Your task to perform on an android device: turn off airplane mode Image 0: 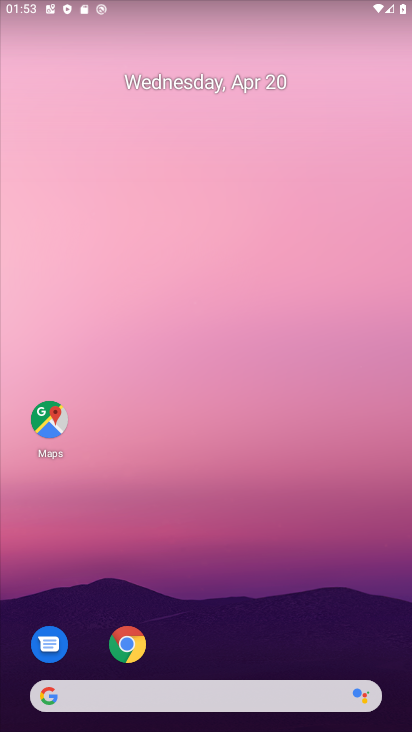
Step 0: drag from (254, 642) to (367, 132)
Your task to perform on an android device: turn off airplane mode Image 1: 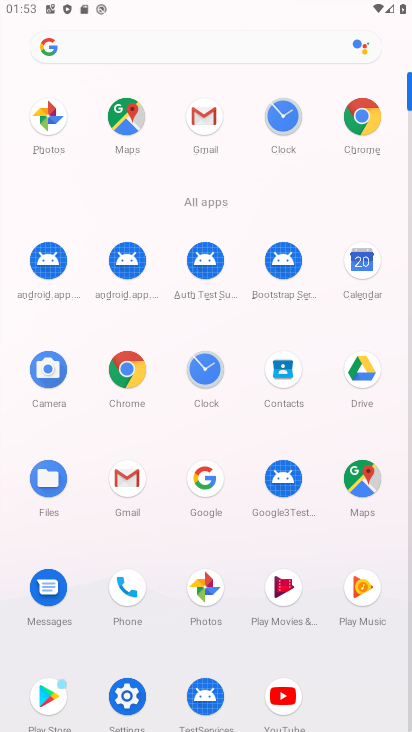
Step 1: click (134, 700)
Your task to perform on an android device: turn off airplane mode Image 2: 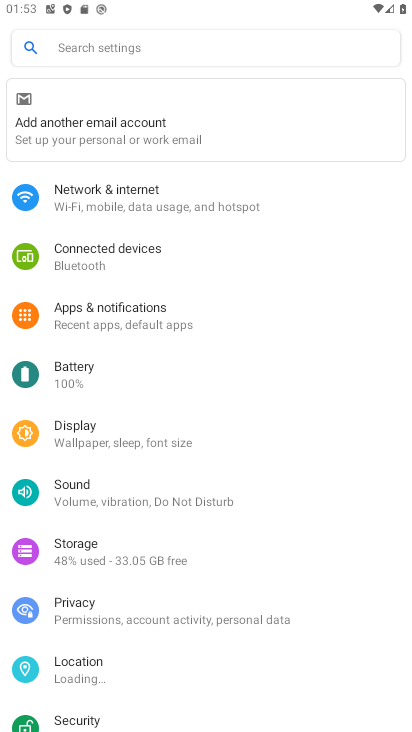
Step 2: click (180, 203)
Your task to perform on an android device: turn off airplane mode Image 3: 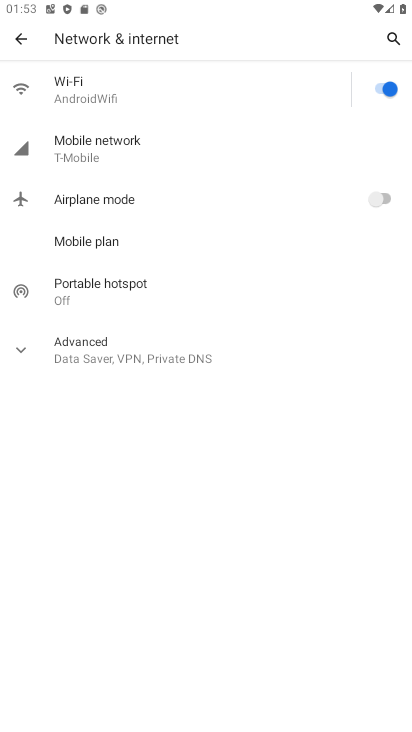
Step 3: task complete